Your task to perform on an android device: Go to settings Image 0: 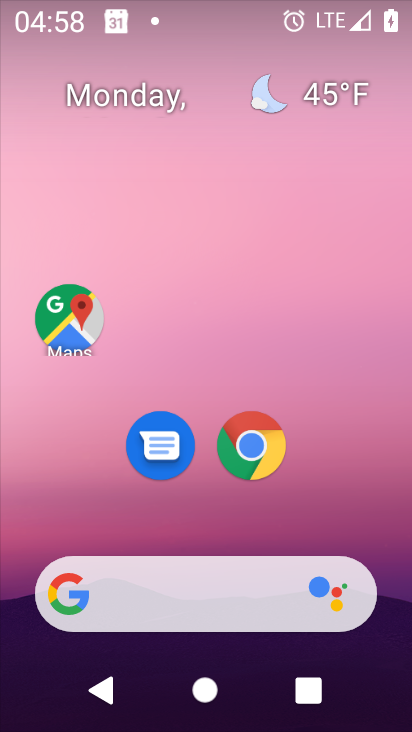
Step 0: drag from (303, 533) to (253, 66)
Your task to perform on an android device: Go to settings Image 1: 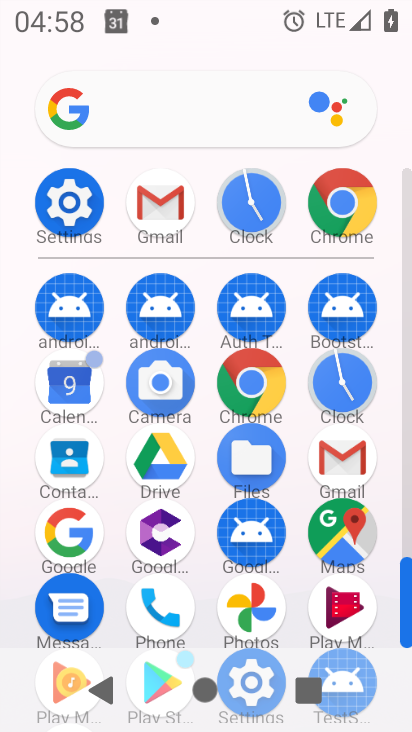
Step 1: click (68, 205)
Your task to perform on an android device: Go to settings Image 2: 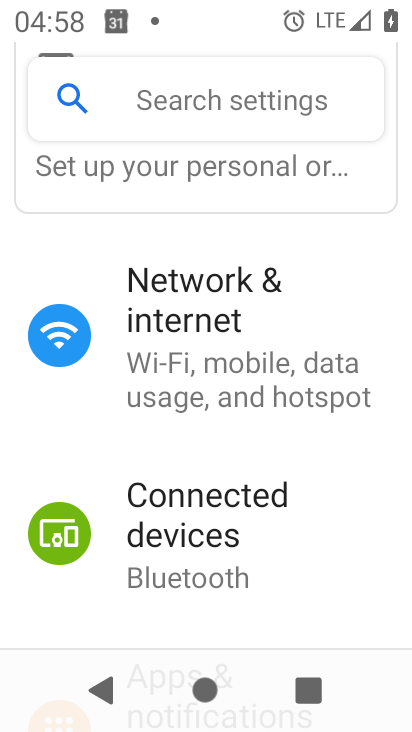
Step 2: task complete